Your task to perform on an android device: move an email to a new category in the gmail app Image 0: 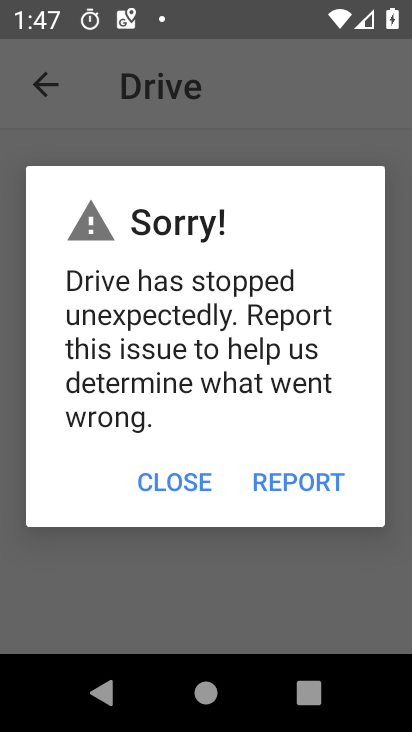
Step 0: press home button
Your task to perform on an android device: move an email to a new category in the gmail app Image 1: 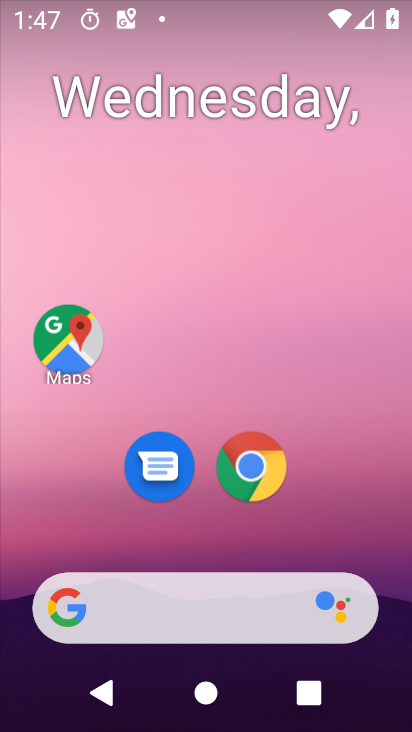
Step 1: drag from (359, 500) to (410, 171)
Your task to perform on an android device: move an email to a new category in the gmail app Image 2: 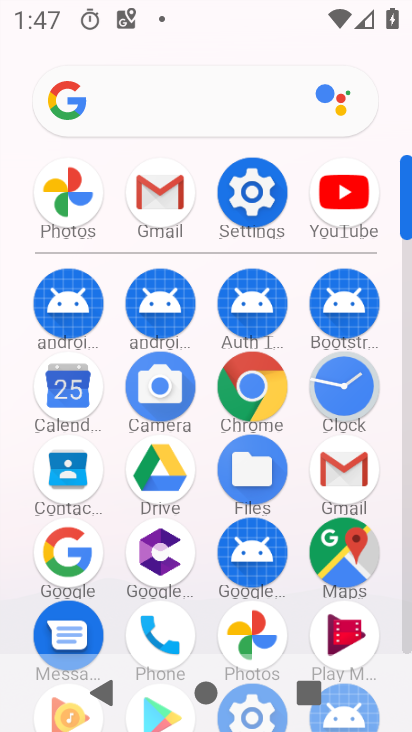
Step 2: click (161, 226)
Your task to perform on an android device: move an email to a new category in the gmail app Image 3: 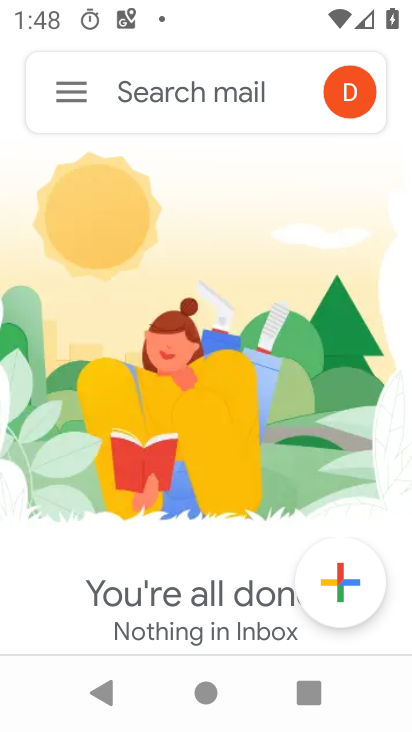
Step 3: click (82, 84)
Your task to perform on an android device: move an email to a new category in the gmail app Image 4: 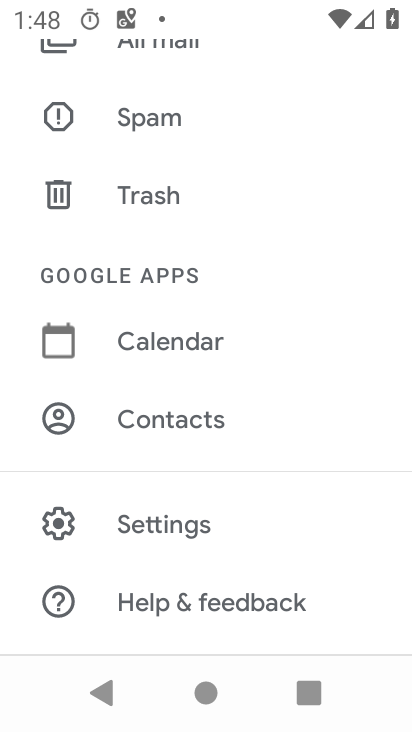
Step 4: task complete